Your task to perform on an android device: Open calendar and show me the first week of next month Image 0: 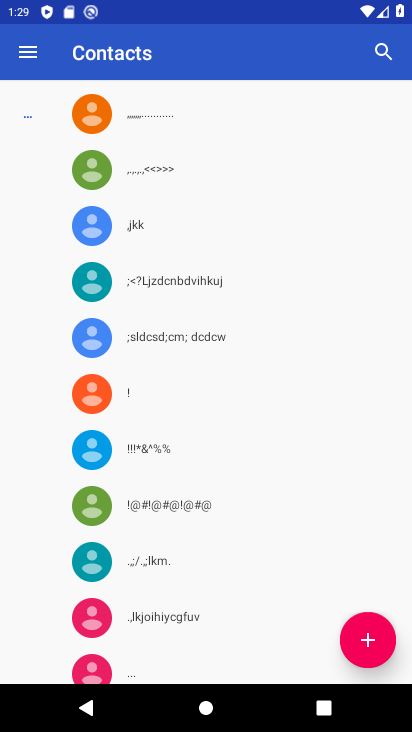
Step 0: press home button
Your task to perform on an android device: Open calendar and show me the first week of next month Image 1: 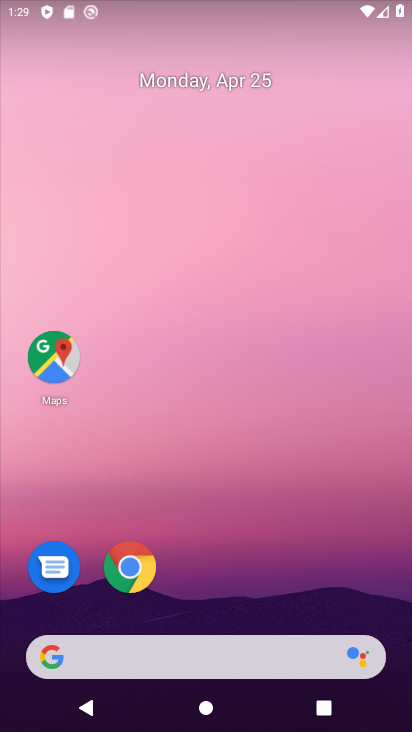
Step 1: drag from (357, 579) to (245, 182)
Your task to perform on an android device: Open calendar and show me the first week of next month Image 2: 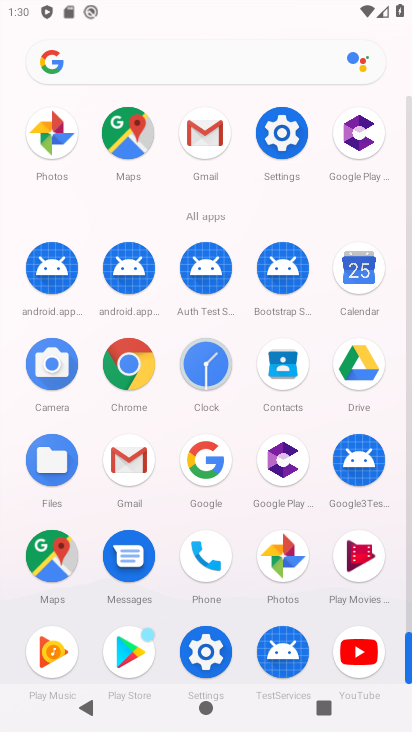
Step 2: click (352, 269)
Your task to perform on an android device: Open calendar and show me the first week of next month Image 3: 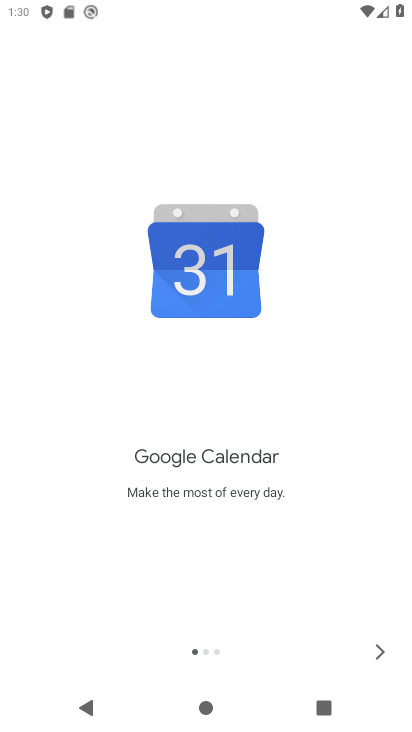
Step 3: click (376, 650)
Your task to perform on an android device: Open calendar and show me the first week of next month Image 4: 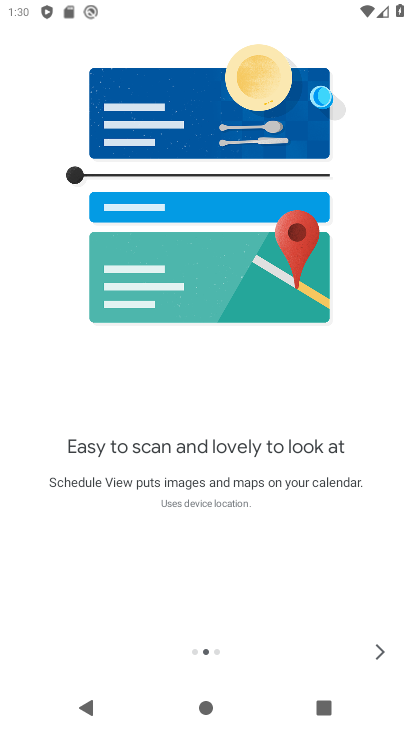
Step 4: click (374, 647)
Your task to perform on an android device: Open calendar and show me the first week of next month Image 5: 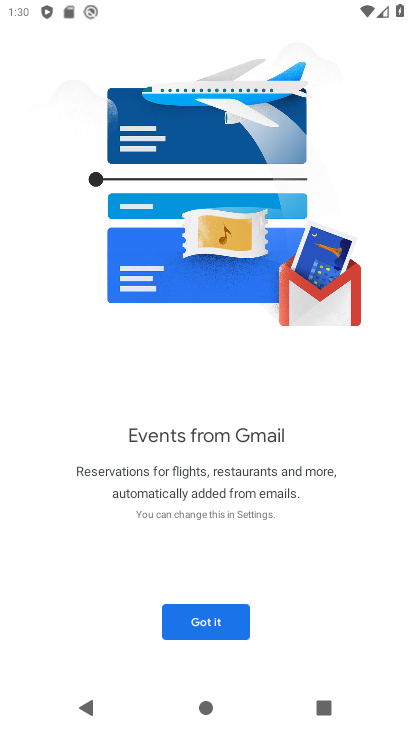
Step 5: click (205, 621)
Your task to perform on an android device: Open calendar and show me the first week of next month Image 6: 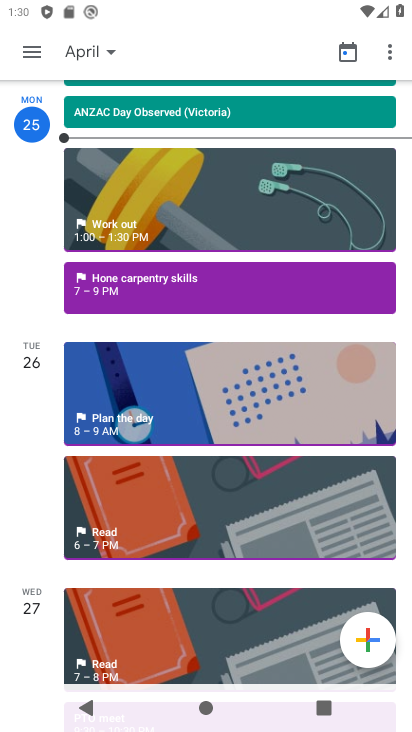
Step 6: click (32, 52)
Your task to perform on an android device: Open calendar and show me the first week of next month Image 7: 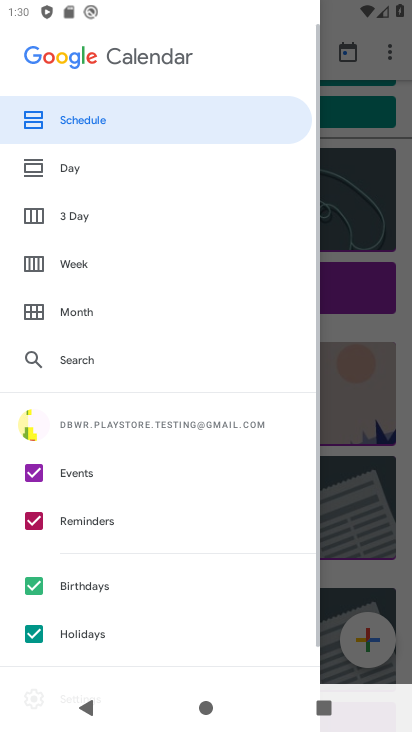
Step 7: click (79, 252)
Your task to perform on an android device: Open calendar and show me the first week of next month Image 8: 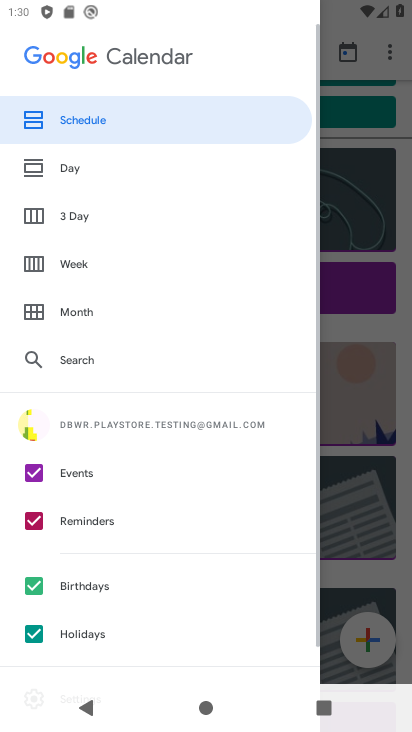
Step 8: click (66, 264)
Your task to perform on an android device: Open calendar and show me the first week of next month Image 9: 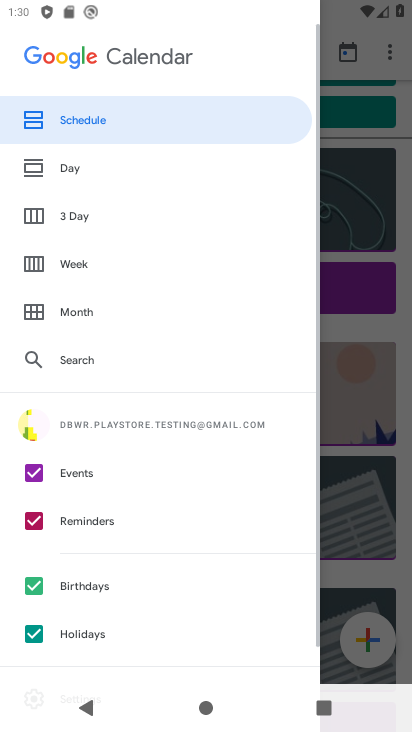
Step 9: click (66, 264)
Your task to perform on an android device: Open calendar and show me the first week of next month Image 10: 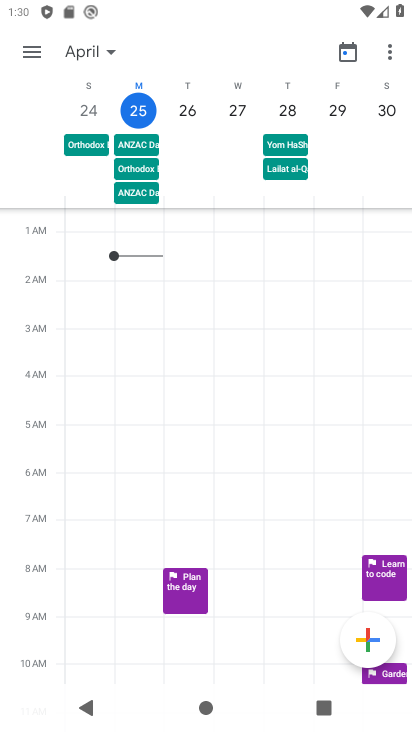
Step 10: click (107, 46)
Your task to perform on an android device: Open calendar and show me the first week of next month Image 11: 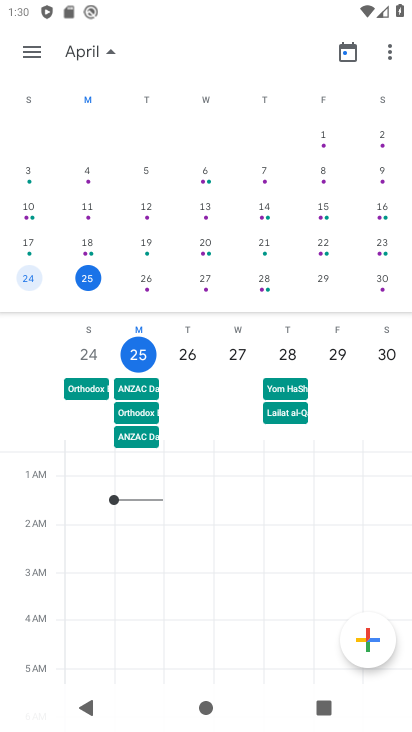
Step 11: task complete